Your task to perform on an android device: Open Google Chrome and click the shortcut for Amazon.com Image 0: 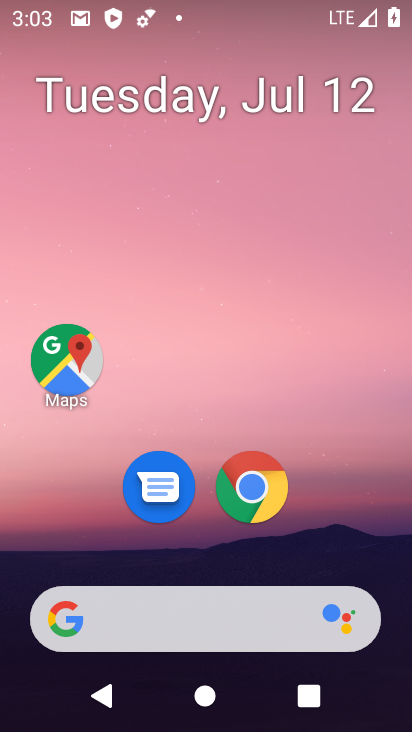
Step 0: drag from (200, 647) to (245, 1)
Your task to perform on an android device: Open Google Chrome and click the shortcut for Amazon.com Image 1: 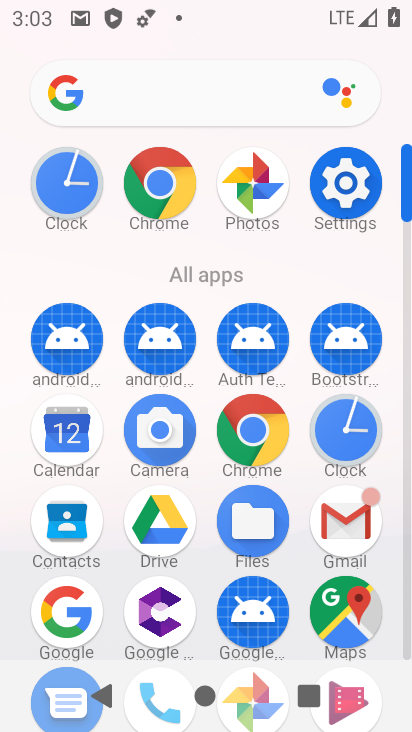
Step 1: click (262, 442)
Your task to perform on an android device: Open Google Chrome and click the shortcut for Amazon.com Image 2: 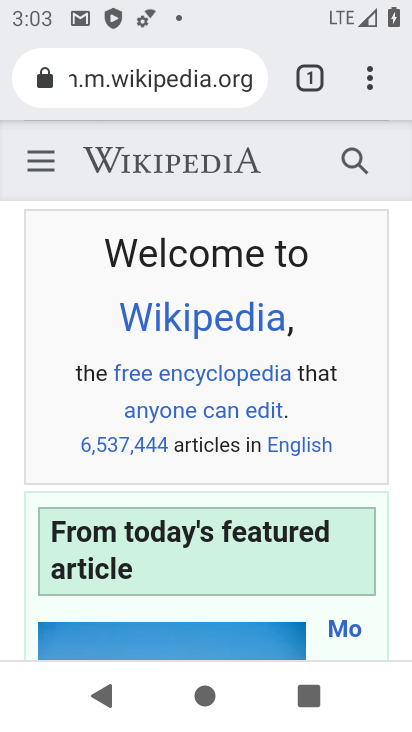
Step 2: drag from (320, 100) to (199, 407)
Your task to perform on an android device: Open Google Chrome and click the shortcut for Amazon.com Image 3: 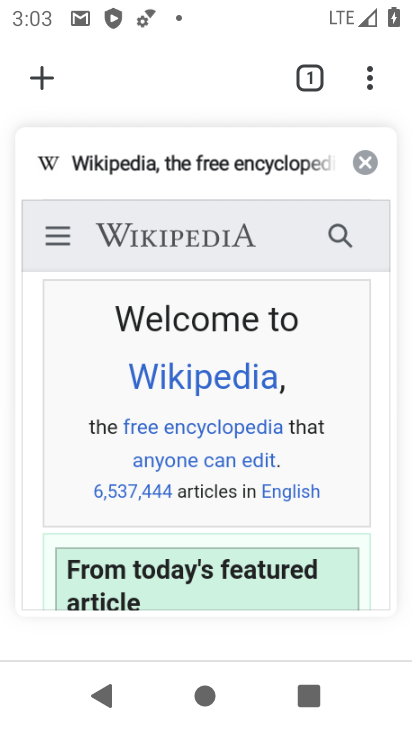
Step 3: click (39, 73)
Your task to perform on an android device: Open Google Chrome and click the shortcut for Amazon.com Image 4: 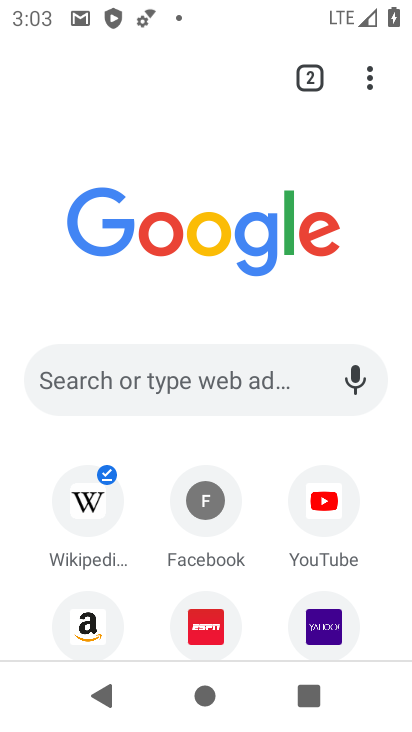
Step 4: click (92, 612)
Your task to perform on an android device: Open Google Chrome and click the shortcut for Amazon.com Image 5: 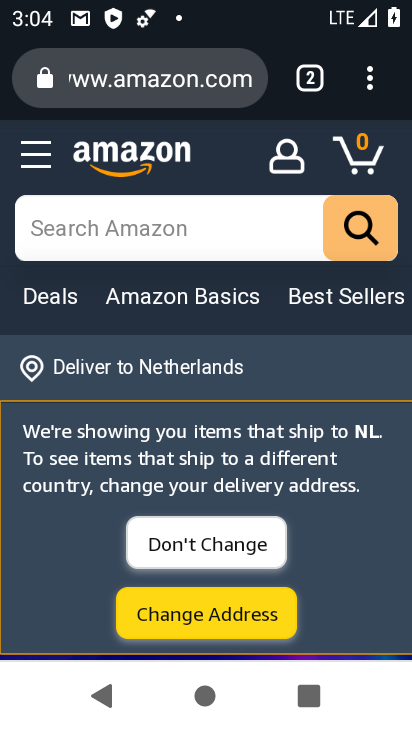
Step 5: task complete